Your task to perform on an android device: open app "Paramount+ | Peak Streaming" Image 0: 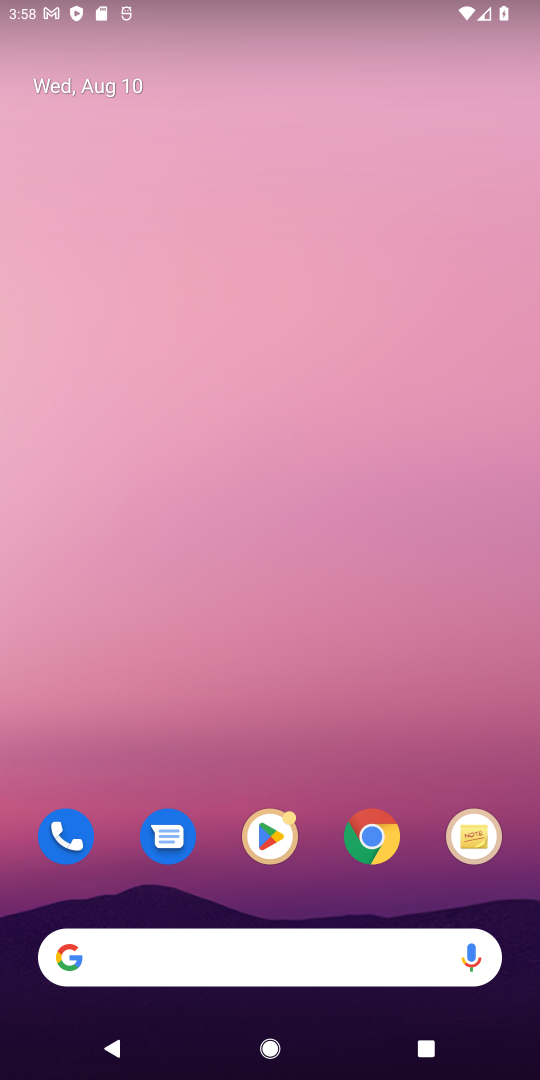
Step 0: drag from (227, 891) to (258, 348)
Your task to perform on an android device: open app "Paramount+ | Peak Streaming" Image 1: 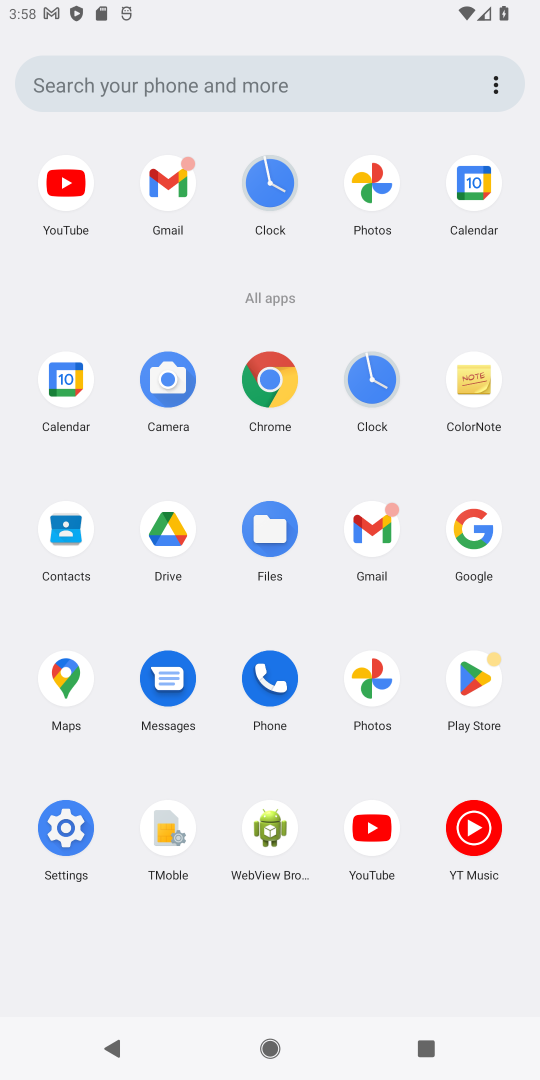
Step 1: click (467, 674)
Your task to perform on an android device: open app "Paramount+ | Peak Streaming" Image 2: 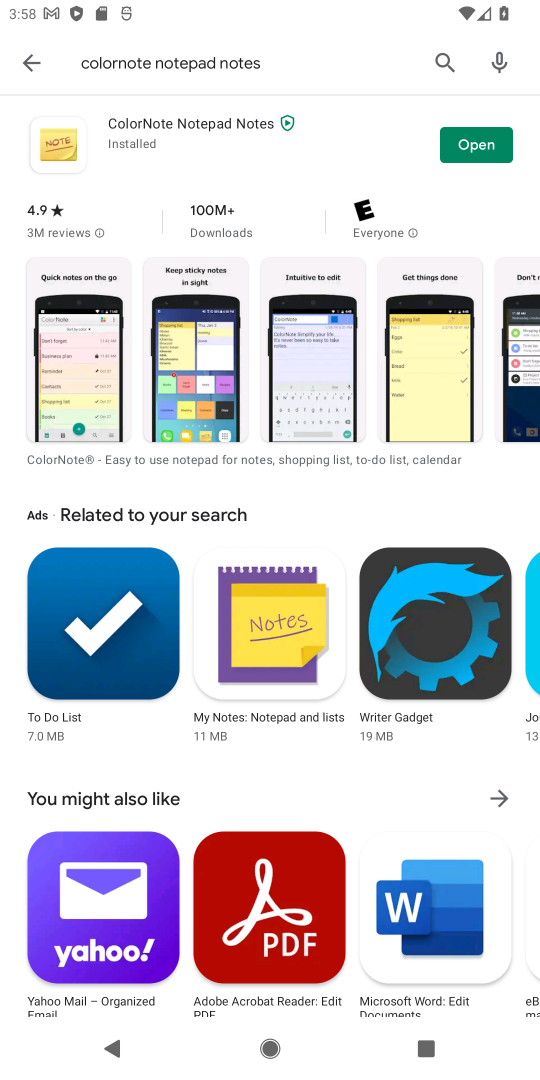
Step 2: click (23, 55)
Your task to perform on an android device: open app "Paramount+ | Peak Streaming" Image 3: 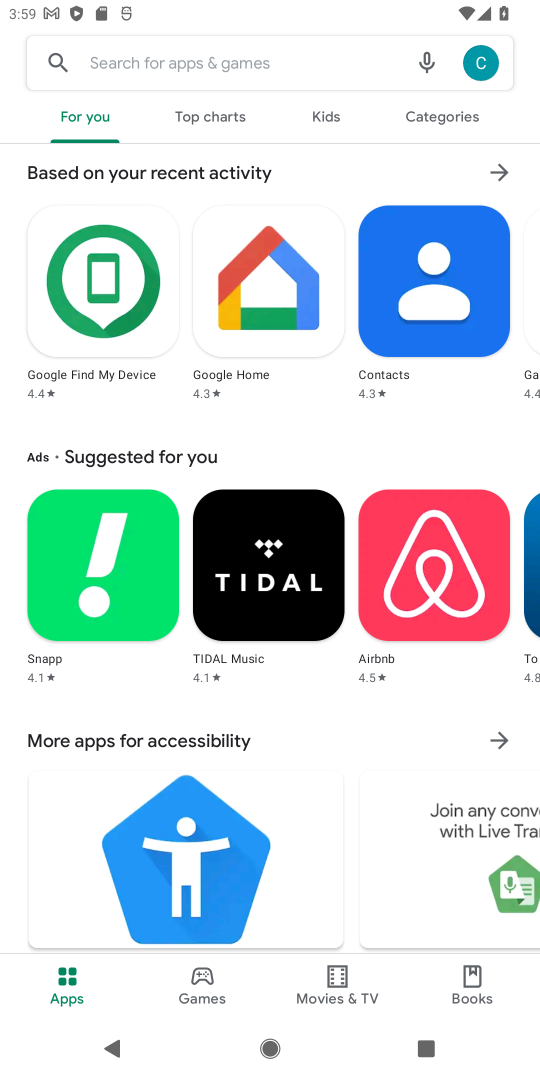
Step 3: click (251, 57)
Your task to perform on an android device: open app "Paramount+ | Peak Streaming" Image 4: 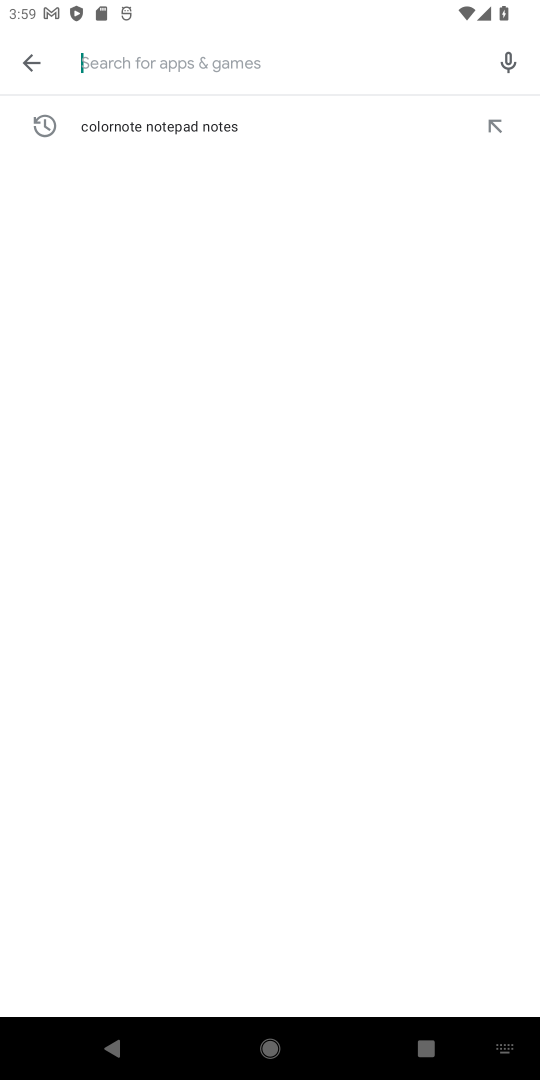
Step 4: type "Paramount "
Your task to perform on an android device: open app "Paramount+ | Peak Streaming" Image 5: 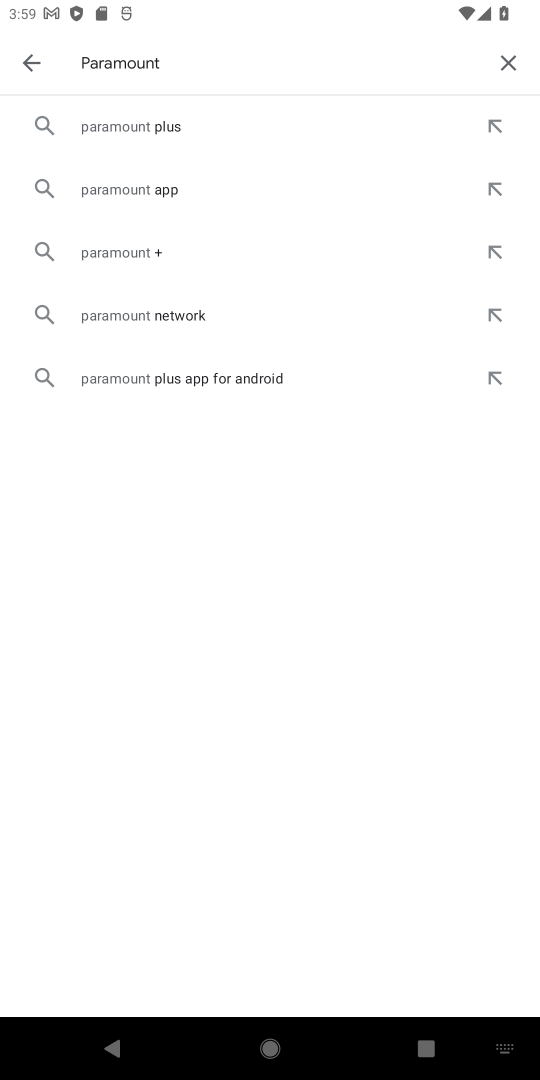
Step 5: click (137, 129)
Your task to perform on an android device: open app "Paramount+ | Peak Streaming" Image 6: 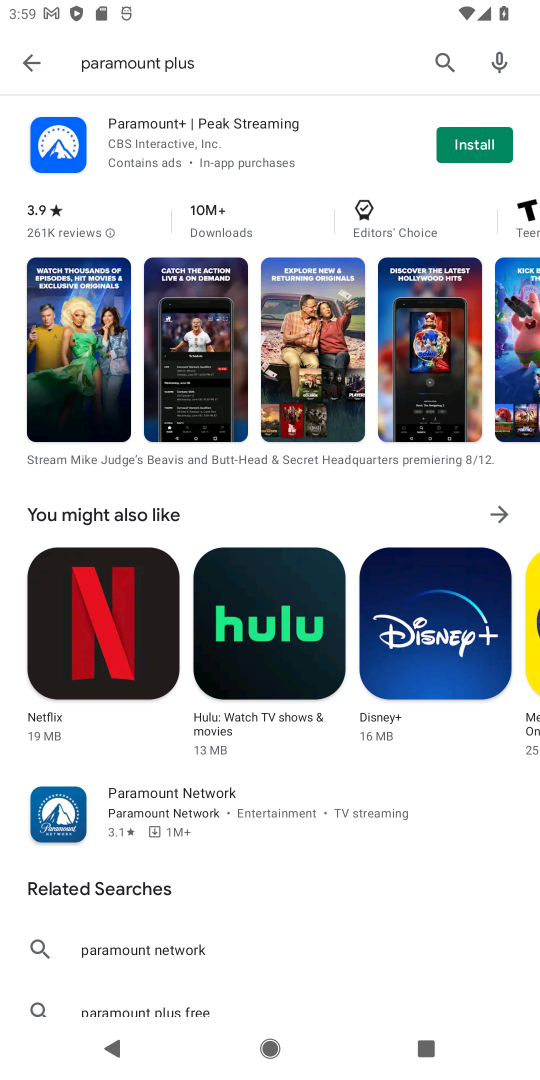
Step 6: click (468, 146)
Your task to perform on an android device: open app "Paramount+ | Peak Streaming" Image 7: 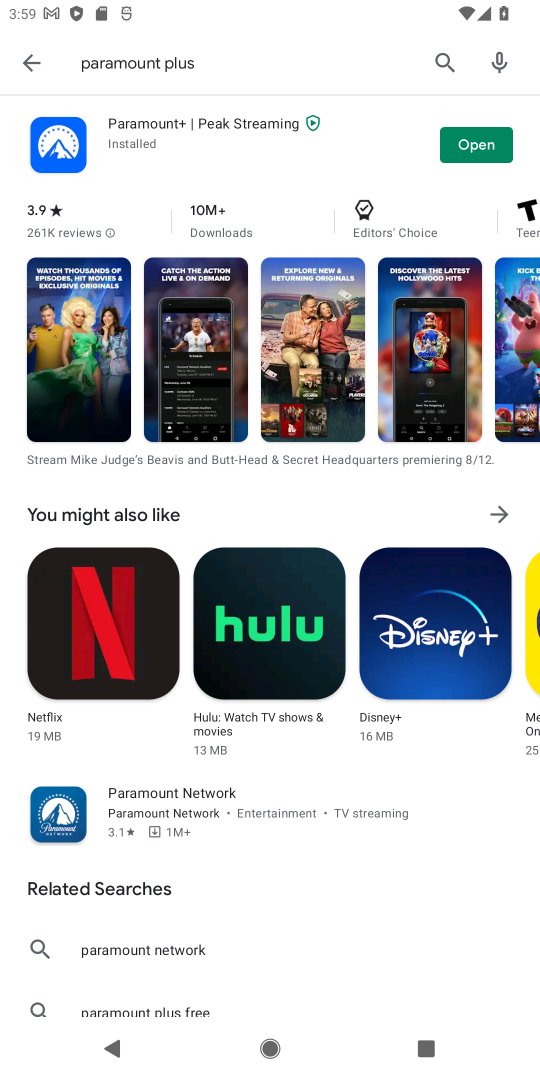
Step 7: click (468, 146)
Your task to perform on an android device: open app "Paramount+ | Peak Streaming" Image 8: 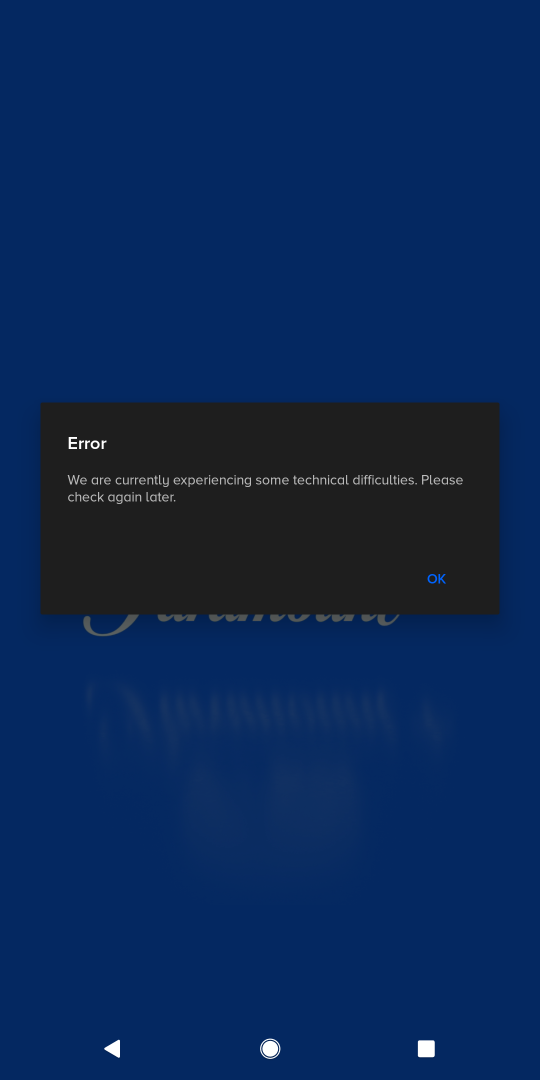
Step 8: click (458, 592)
Your task to perform on an android device: open app "Paramount+ | Peak Streaming" Image 9: 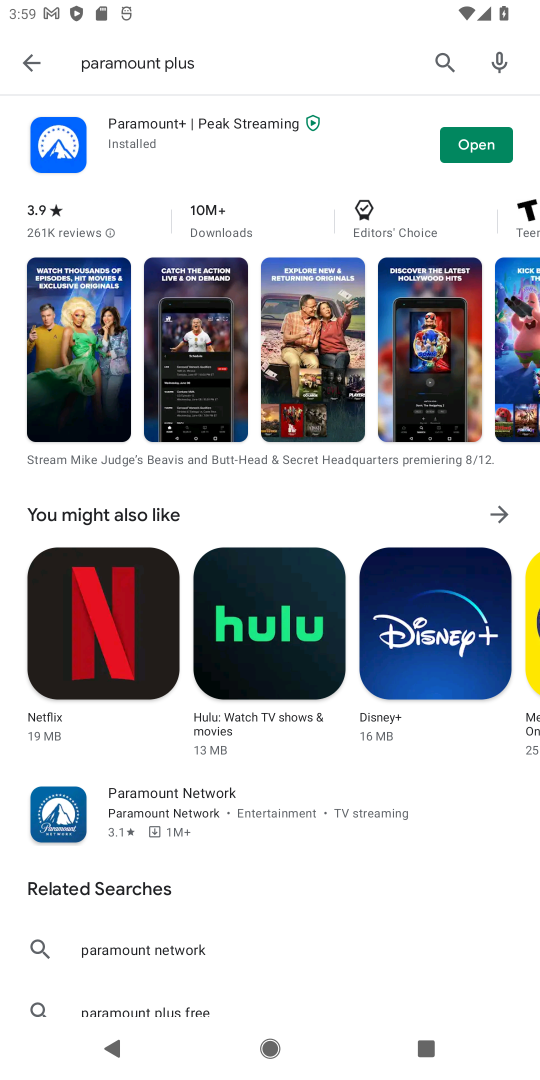
Step 9: click (466, 141)
Your task to perform on an android device: open app "Paramount+ | Peak Streaming" Image 10: 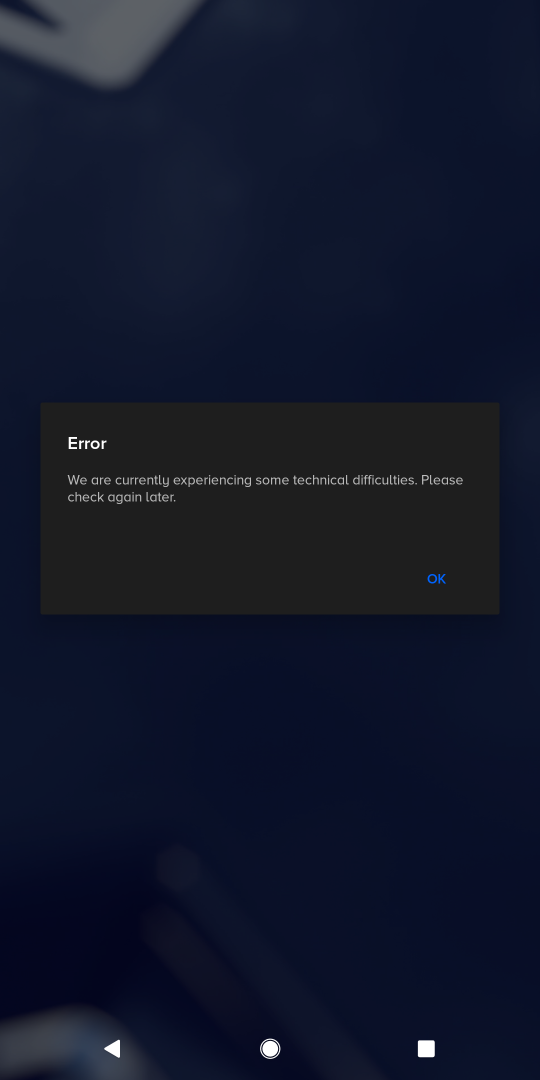
Step 10: task complete